Your task to perform on an android device: Go to eBay Image 0: 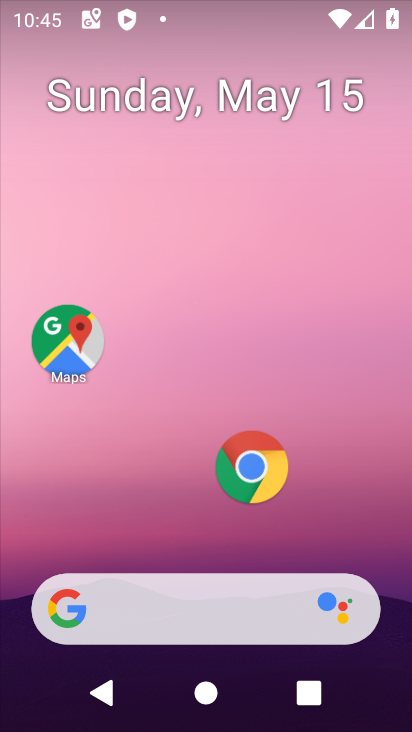
Step 0: drag from (230, 398) to (382, 185)
Your task to perform on an android device: Go to eBay Image 1: 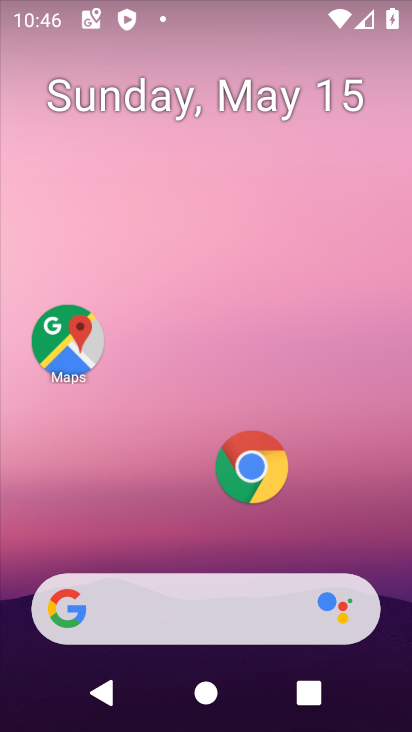
Step 1: drag from (217, 553) to (225, 44)
Your task to perform on an android device: Go to eBay Image 2: 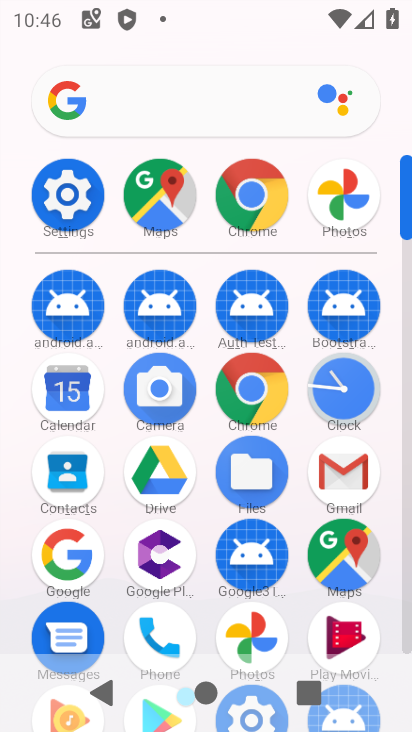
Step 2: click (197, 100)
Your task to perform on an android device: Go to eBay Image 3: 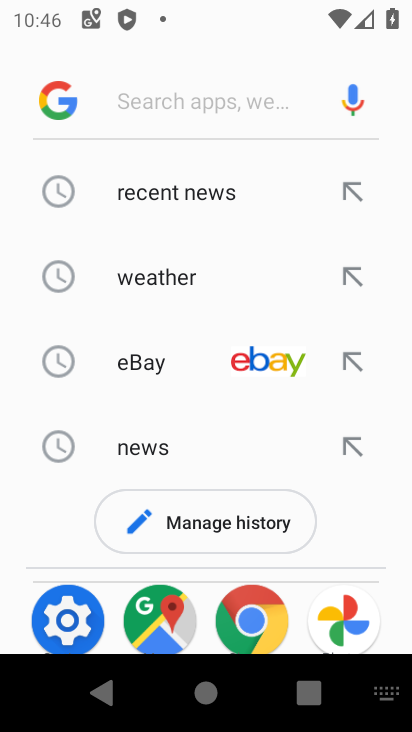
Step 3: click (230, 344)
Your task to perform on an android device: Go to eBay Image 4: 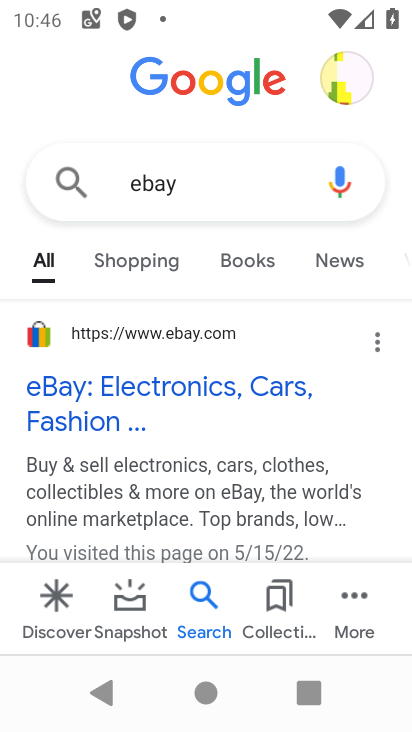
Step 4: drag from (223, 468) to (282, 187)
Your task to perform on an android device: Go to eBay Image 5: 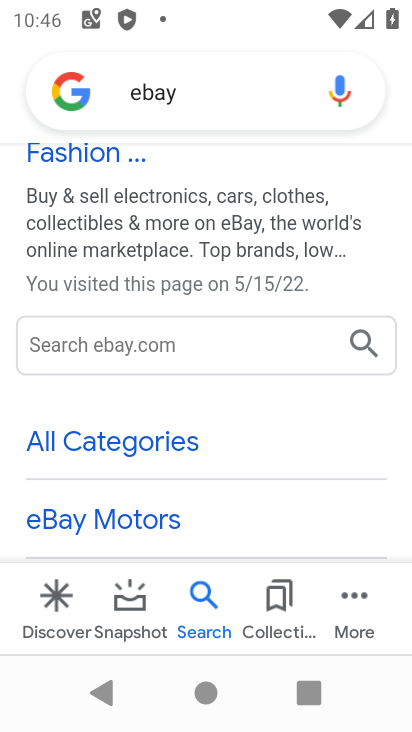
Step 5: click (71, 137)
Your task to perform on an android device: Go to eBay Image 6: 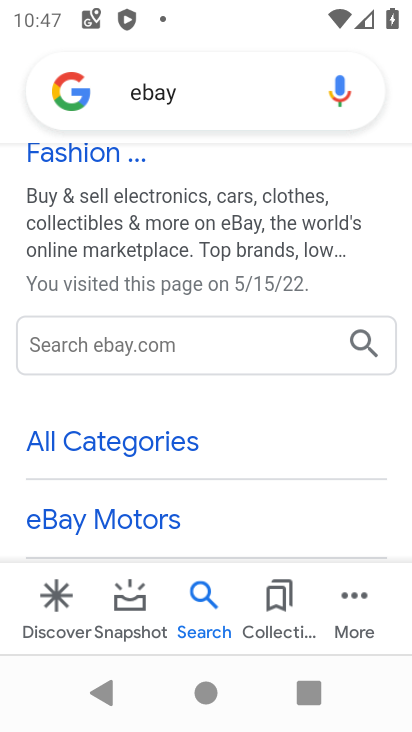
Step 6: drag from (288, 163) to (368, 467)
Your task to perform on an android device: Go to eBay Image 7: 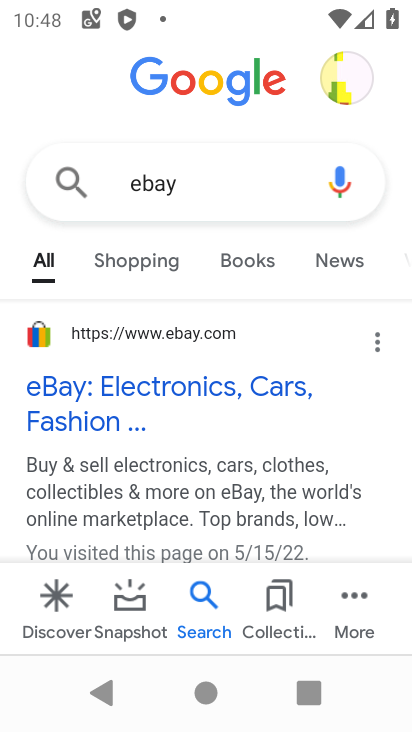
Step 7: click (149, 381)
Your task to perform on an android device: Go to eBay Image 8: 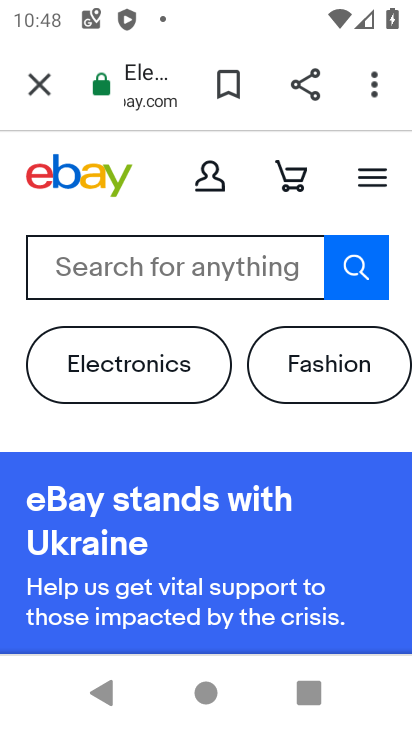
Step 8: task complete